Your task to perform on an android device: What's the weather today? Image 0: 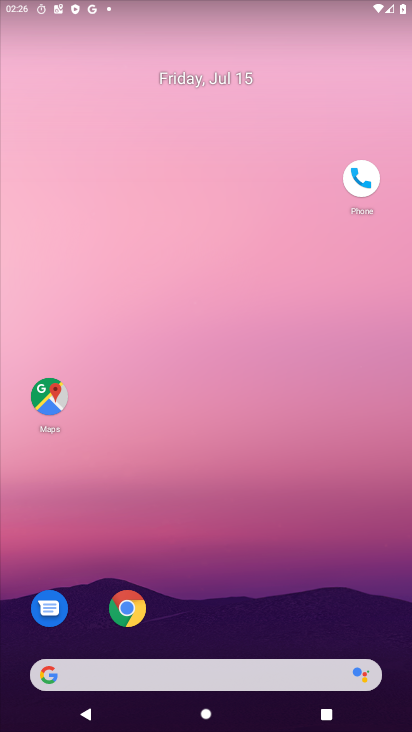
Step 0: drag from (170, 643) to (216, 239)
Your task to perform on an android device: What's the weather today? Image 1: 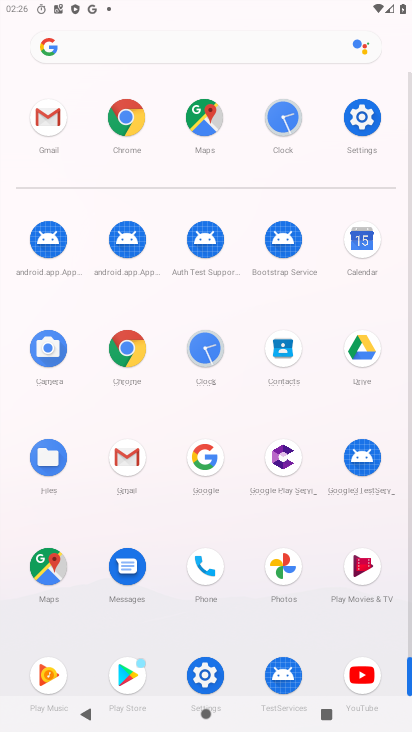
Step 1: click (146, 49)
Your task to perform on an android device: What's the weather today? Image 2: 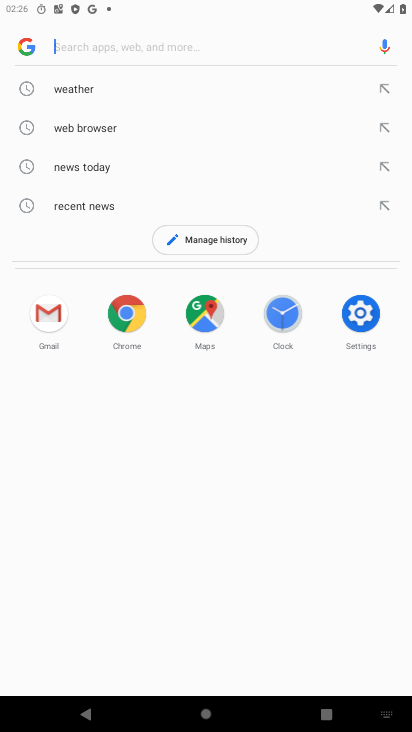
Step 2: type "weather today?"
Your task to perform on an android device: What's the weather today? Image 3: 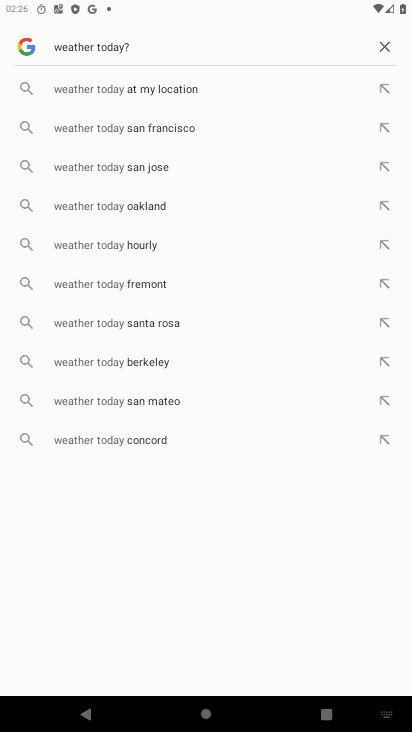
Step 3: click (107, 81)
Your task to perform on an android device: What's the weather today? Image 4: 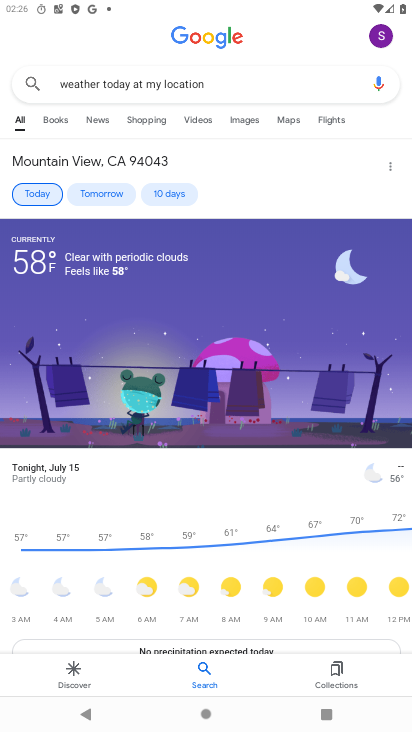
Step 4: task complete